Your task to perform on an android device: Show me the alarms in the clock app Image 0: 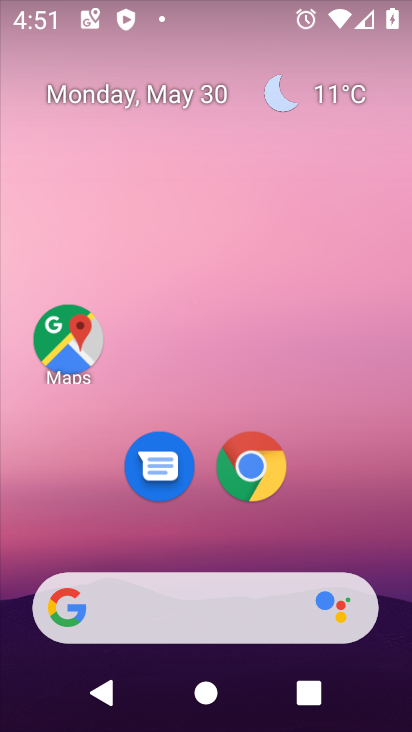
Step 0: drag from (355, 511) to (369, 144)
Your task to perform on an android device: Show me the alarms in the clock app Image 1: 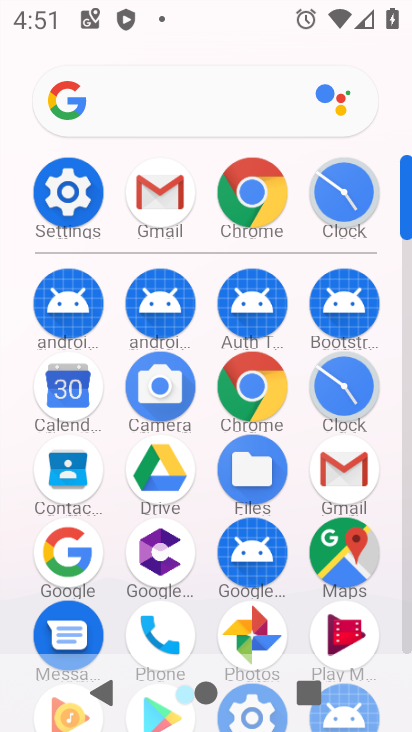
Step 1: click (362, 388)
Your task to perform on an android device: Show me the alarms in the clock app Image 2: 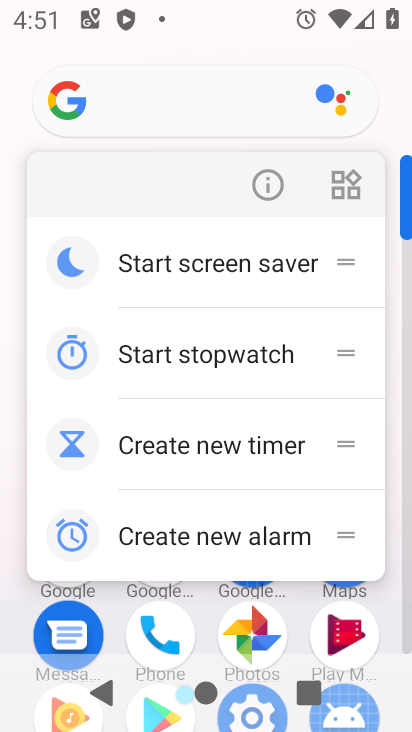
Step 2: click (399, 237)
Your task to perform on an android device: Show me the alarms in the clock app Image 3: 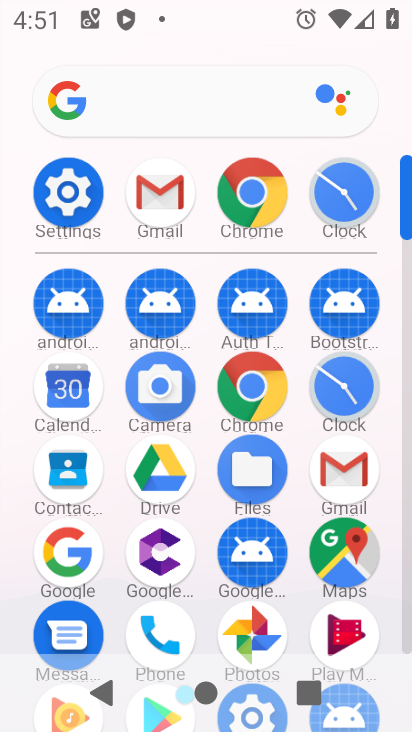
Step 3: click (342, 378)
Your task to perform on an android device: Show me the alarms in the clock app Image 4: 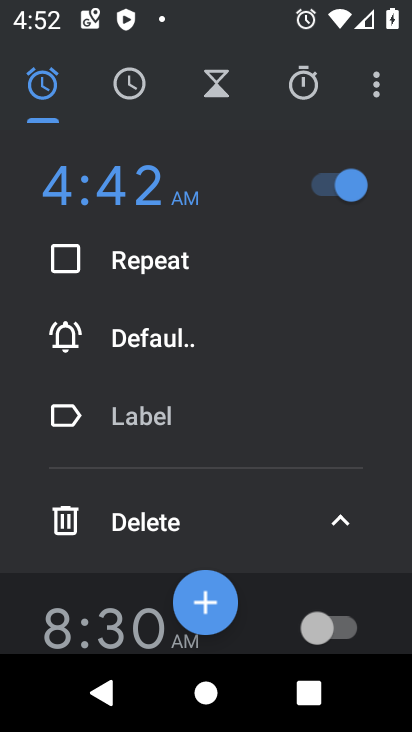
Step 4: task complete